Your task to perform on an android device: change notifications settings Image 0: 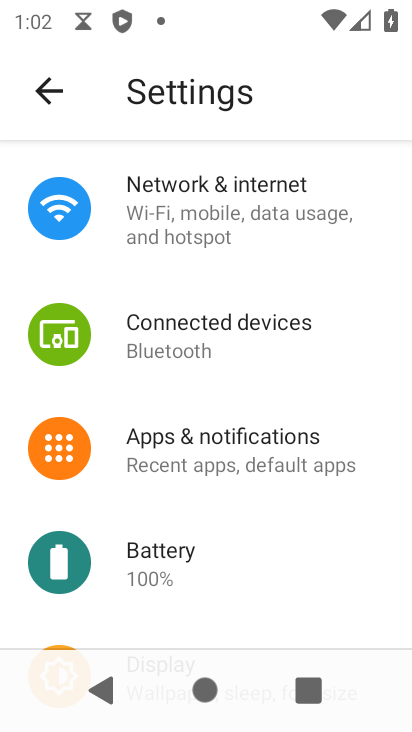
Step 0: press home button
Your task to perform on an android device: change notifications settings Image 1: 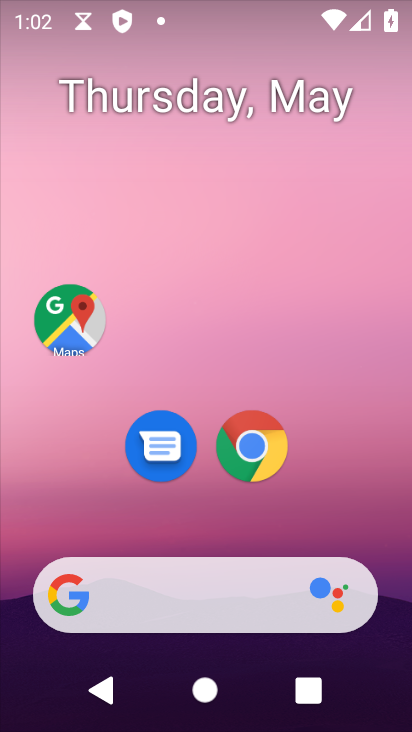
Step 1: drag from (192, 532) to (208, 98)
Your task to perform on an android device: change notifications settings Image 2: 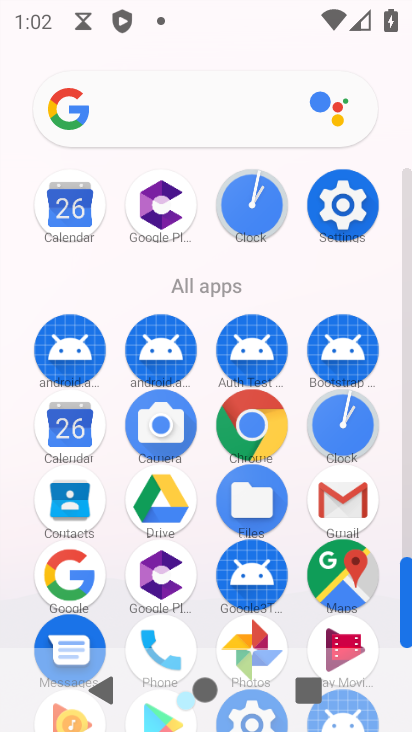
Step 2: click (356, 205)
Your task to perform on an android device: change notifications settings Image 3: 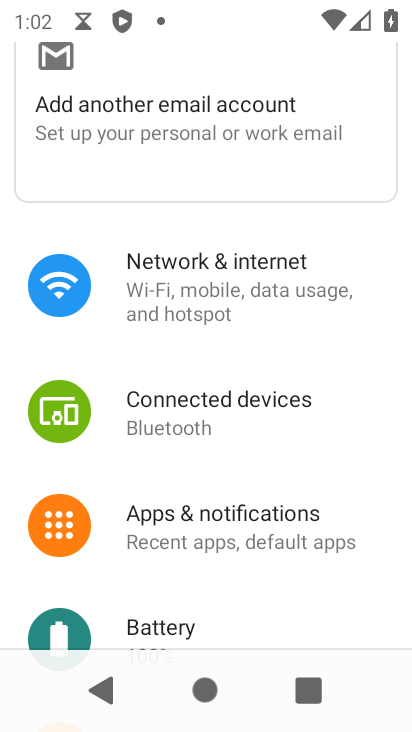
Step 3: click (211, 527)
Your task to perform on an android device: change notifications settings Image 4: 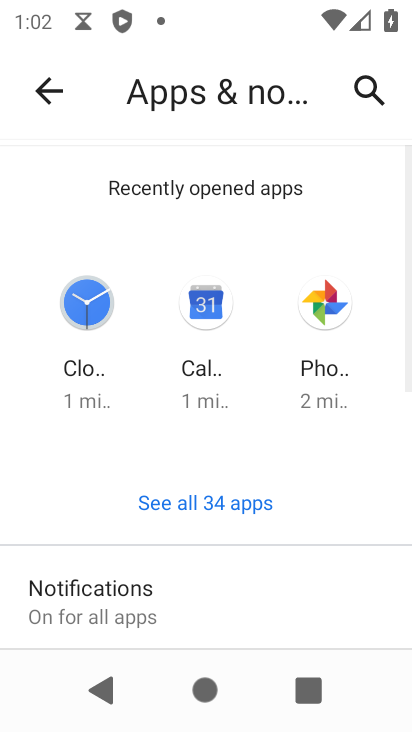
Step 4: drag from (206, 550) to (239, 328)
Your task to perform on an android device: change notifications settings Image 5: 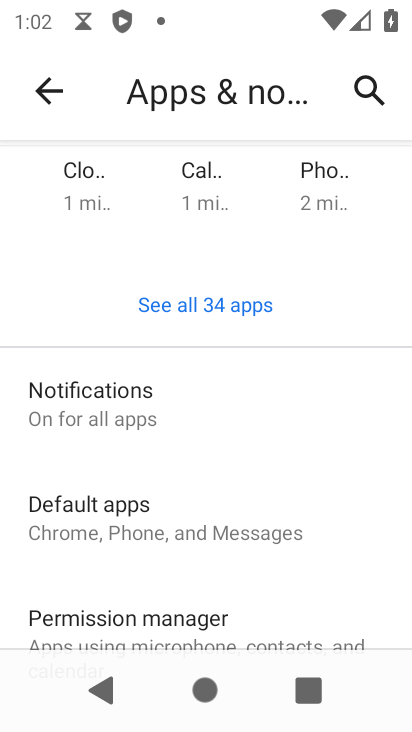
Step 5: click (150, 402)
Your task to perform on an android device: change notifications settings Image 6: 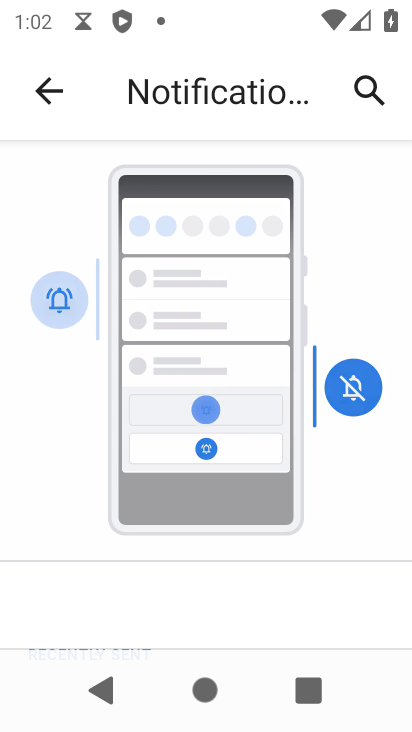
Step 6: drag from (141, 572) to (185, 244)
Your task to perform on an android device: change notifications settings Image 7: 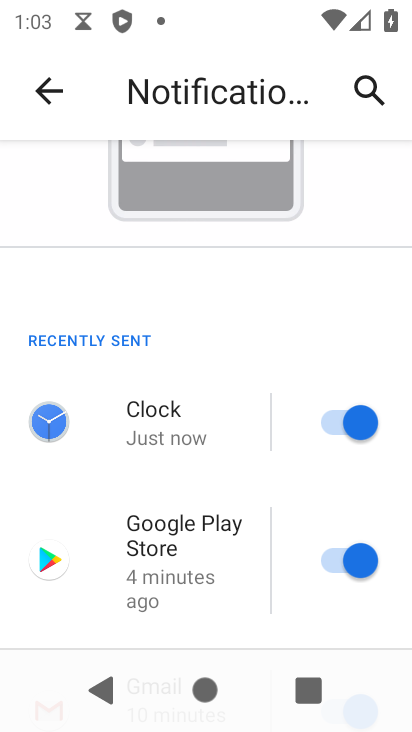
Step 7: click (296, 425)
Your task to perform on an android device: change notifications settings Image 8: 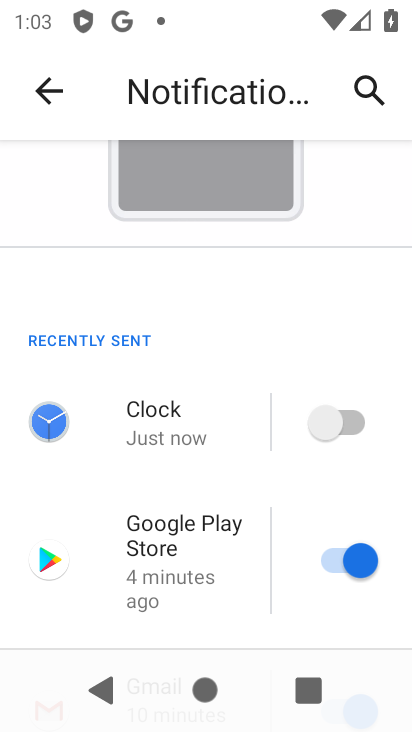
Step 8: drag from (189, 500) to (247, 124)
Your task to perform on an android device: change notifications settings Image 9: 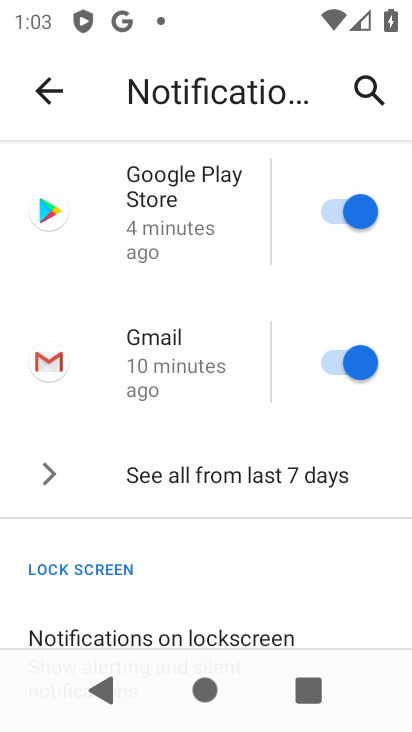
Step 9: click (180, 469)
Your task to perform on an android device: change notifications settings Image 10: 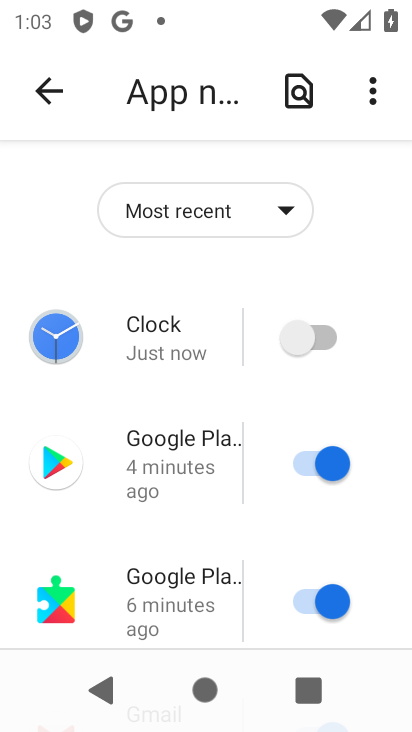
Step 10: click (294, 453)
Your task to perform on an android device: change notifications settings Image 11: 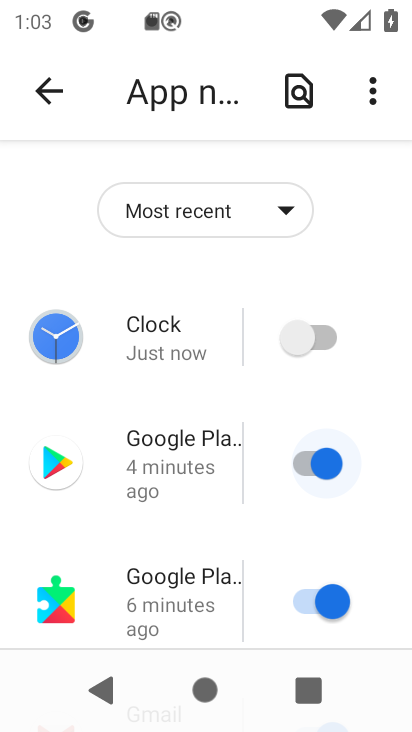
Step 11: drag from (215, 547) to (239, 322)
Your task to perform on an android device: change notifications settings Image 12: 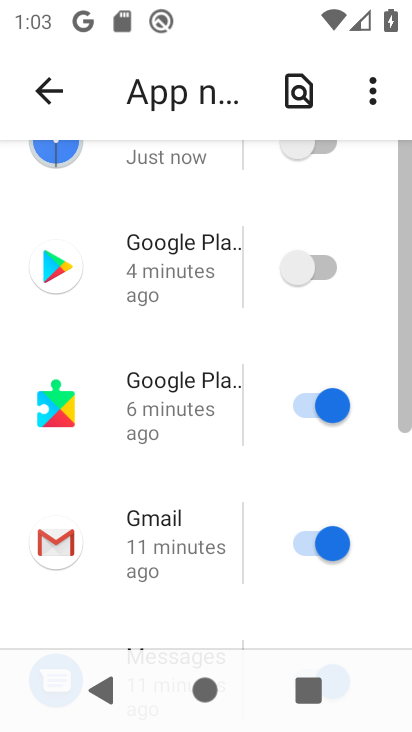
Step 12: click (311, 399)
Your task to perform on an android device: change notifications settings Image 13: 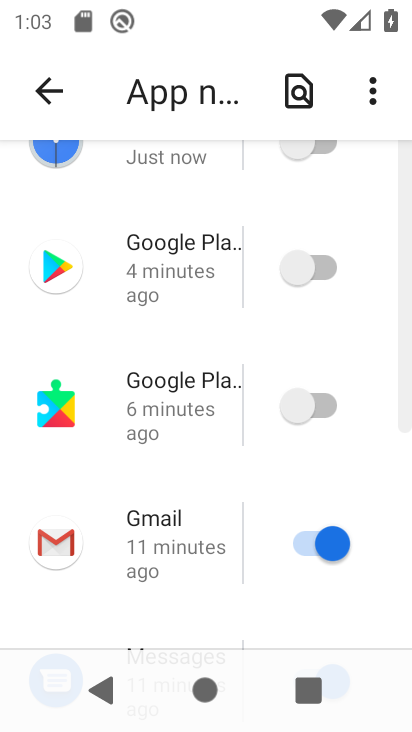
Step 13: click (301, 544)
Your task to perform on an android device: change notifications settings Image 14: 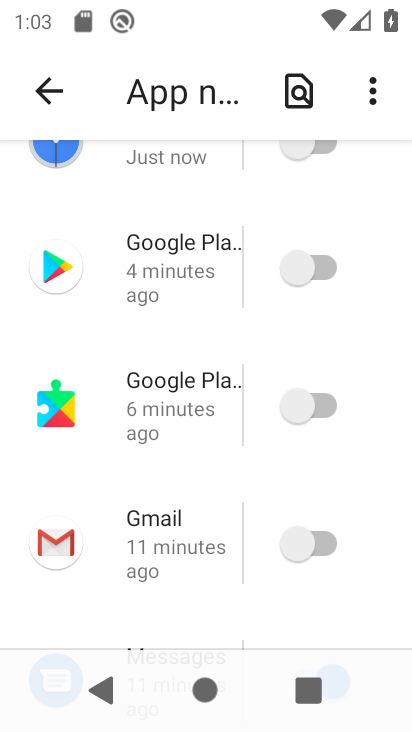
Step 14: drag from (198, 528) to (228, 149)
Your task to perform on an android device: change notifications settings Image 15: 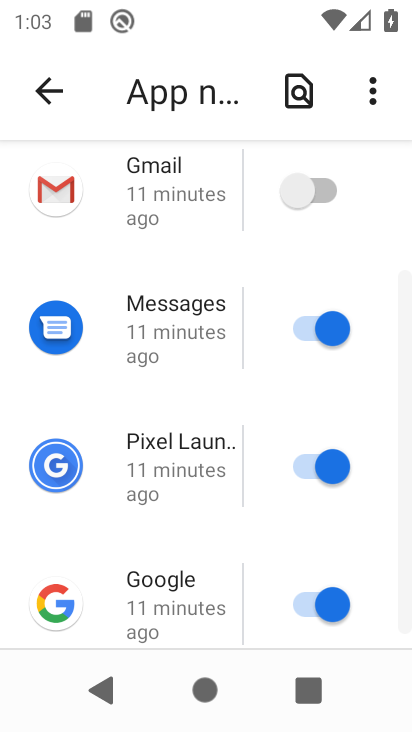
Step 15: click (325, 329)
Your task to perform on an android device: change notifications settings Image 16: 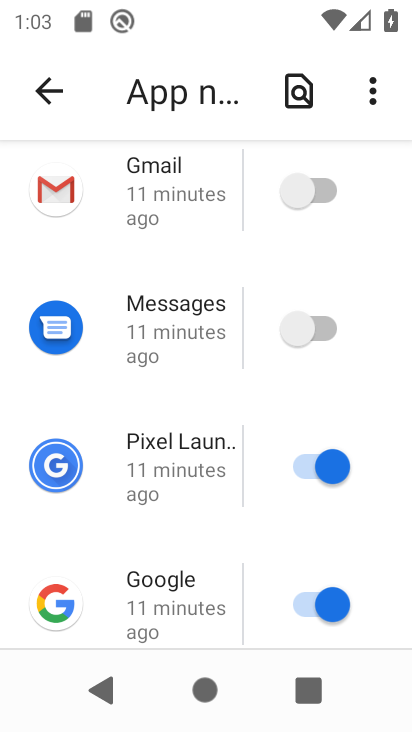
Step 16: click (303, 462)
Your task to perform on an android device: change notifications settings Image 17: 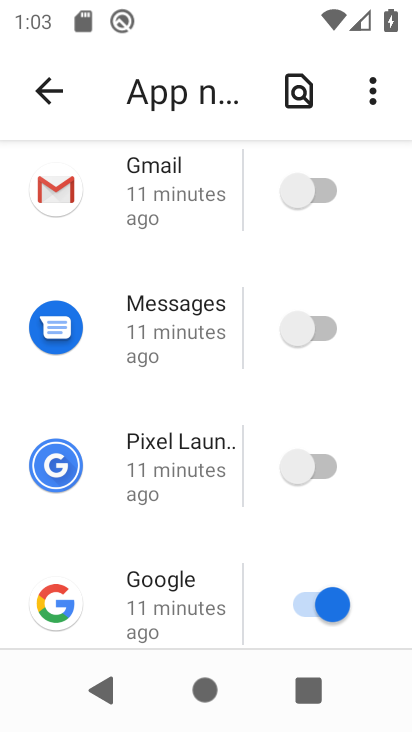
Step 17: click (291, 612)
Your task to perform on an android device: change notifications settings Image 18: 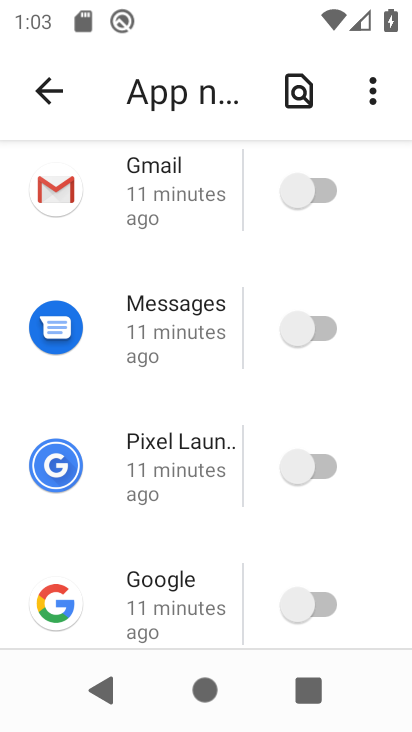
Step 18: drag from (201, 555) to (231, 152)
Your task to perform on an android device: change notifications settings Image 19: 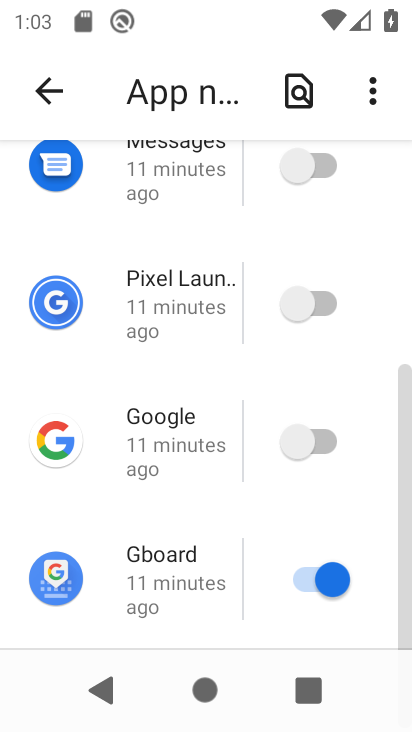
Step 19: click (306, 591)
Your task to perform on an android device: change notifications settings Image 20: 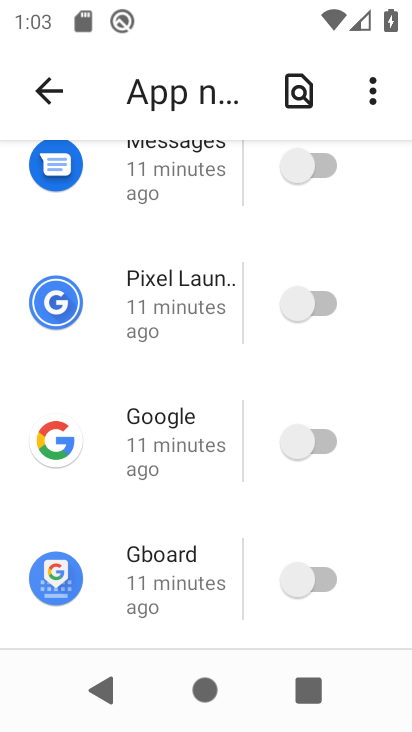
Step 20: task complete